Your task to perform on an android device: toggle show notifications on the lock screen Image 0: 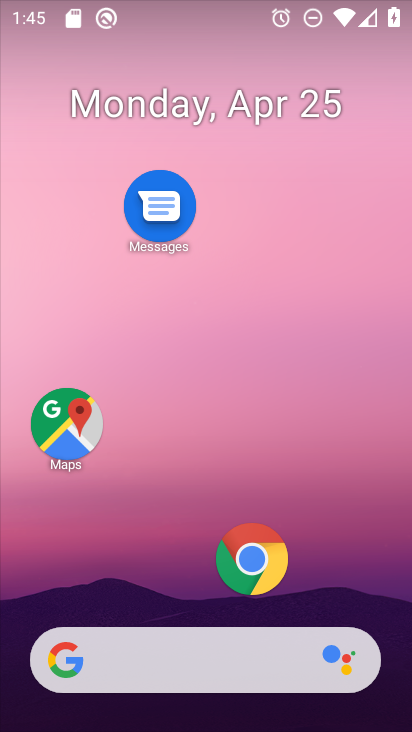
Step 0: drag from (180, 585) to (187, 138)
Your task to perform on an android device: toggle show notifications on the lock screen Image 1: 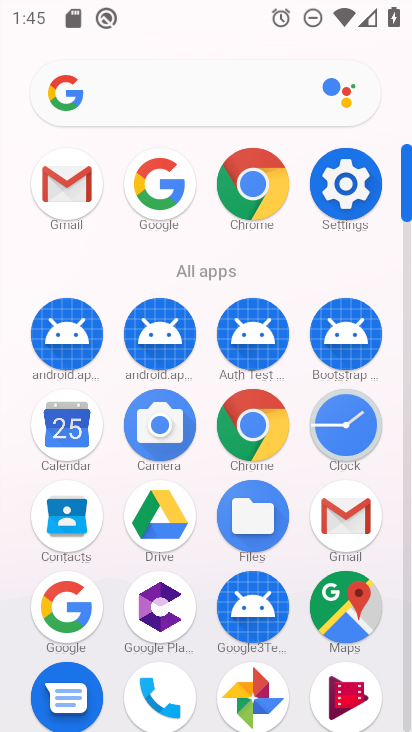
Step 1: click (343, 186)
Your task to perform on an android device: toggle show notifications on the lock screen Image 2: 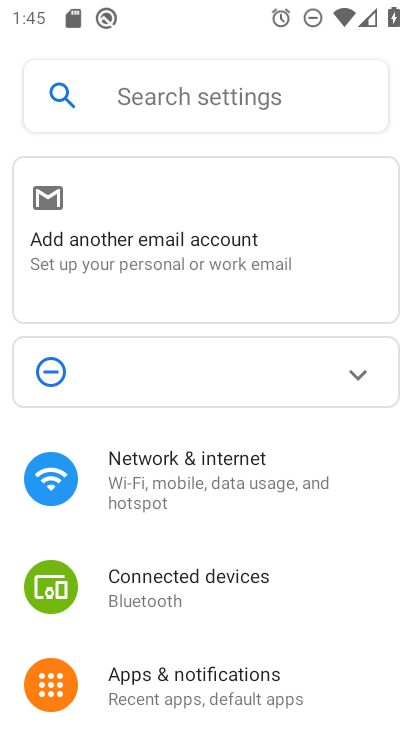
Step 2: drag from (312, 532) to (334, 184)
Your task to perform on an android device: toggle show notifications on the lock screen Image 3: 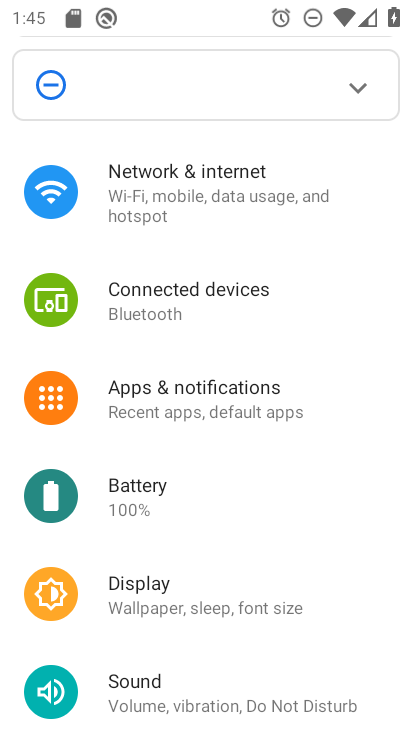
Step 3: click (208, 391)
Your task to perform on an android device: toggle show notifications on the lock screen Image 4: 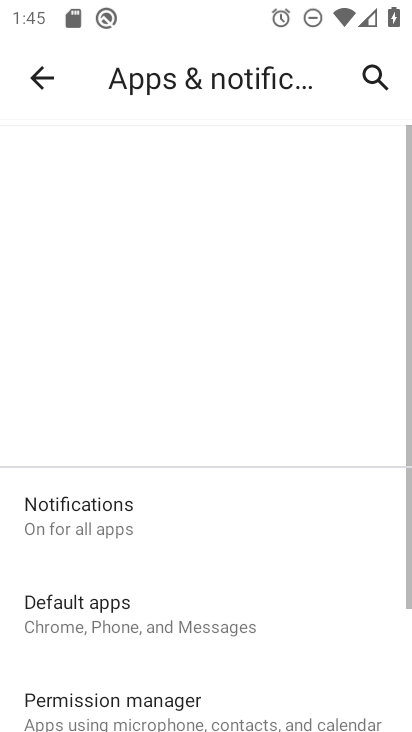
Step 4: click (218, 396)
Your task to perform on an android device: toggle show notifications on the lock screen Image 5: 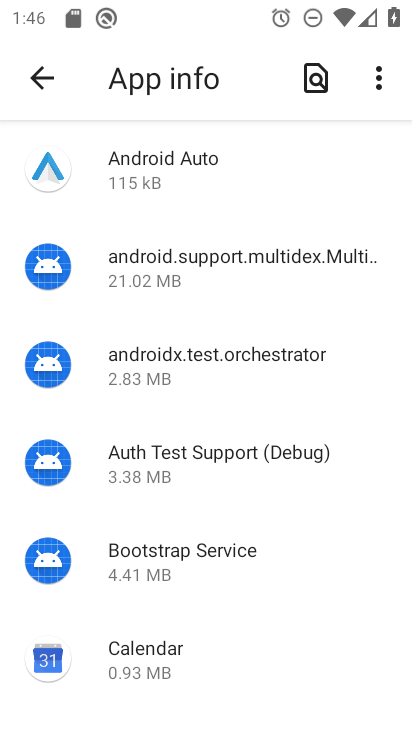
Step 5: press back button
Your task to perform on an android device: toggle show notifications on the lock screen Image 6: 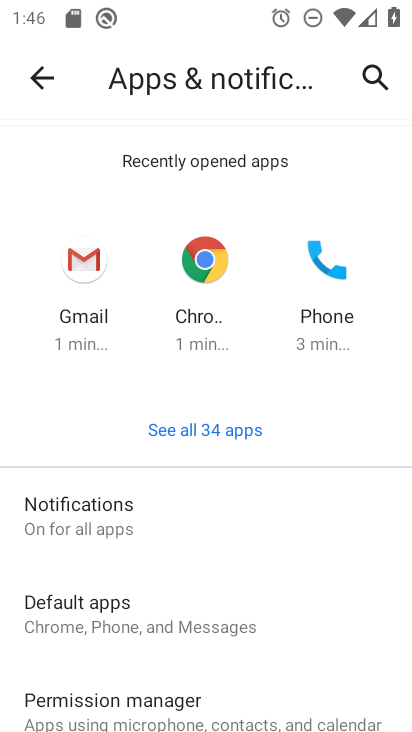
Step 6: click (118, 518)
Your task to perform on an android device: toggle show notifications on the lock screen Image 7: 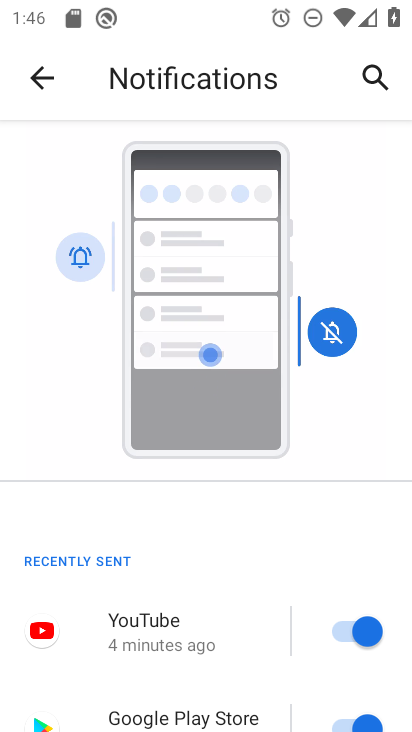
Step 7: drag from (249, 549) to (271, 79)
Your task to perform on an android device: toggle show notifications on the lock screen Image 8: 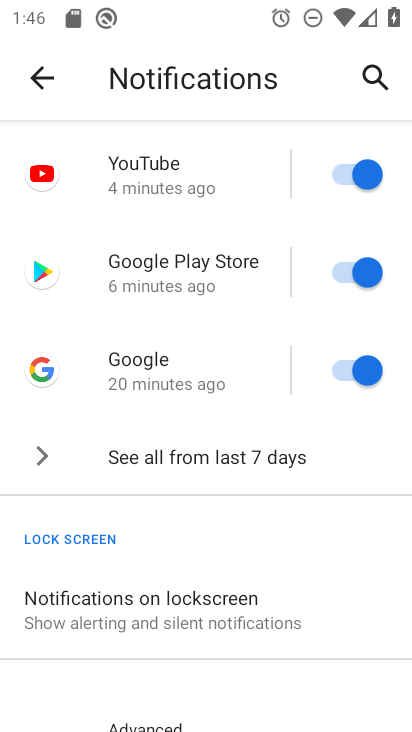
Step 8: drag from (247, 621) to (238, 459)
Your task to perform on an android device: toggle show notifications on the lock screen Image 9: 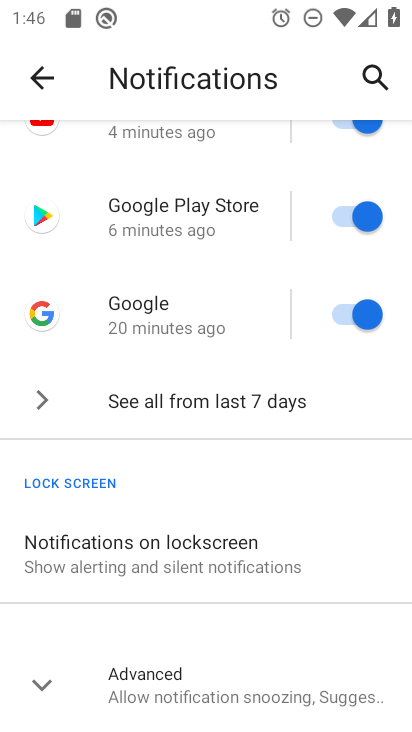
Step 9: click (137, 555)
Your task to perform on an android device: toggle show notifications on the lock screen Image 10: 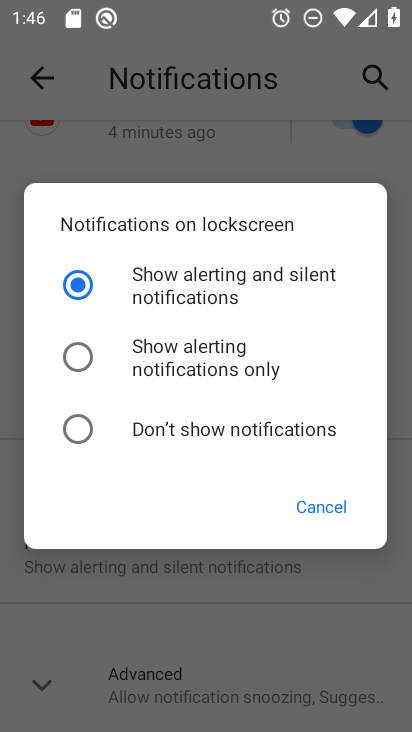
Step 10: task complete